Your task to perform on an android device: turn notification dots on Image 0: 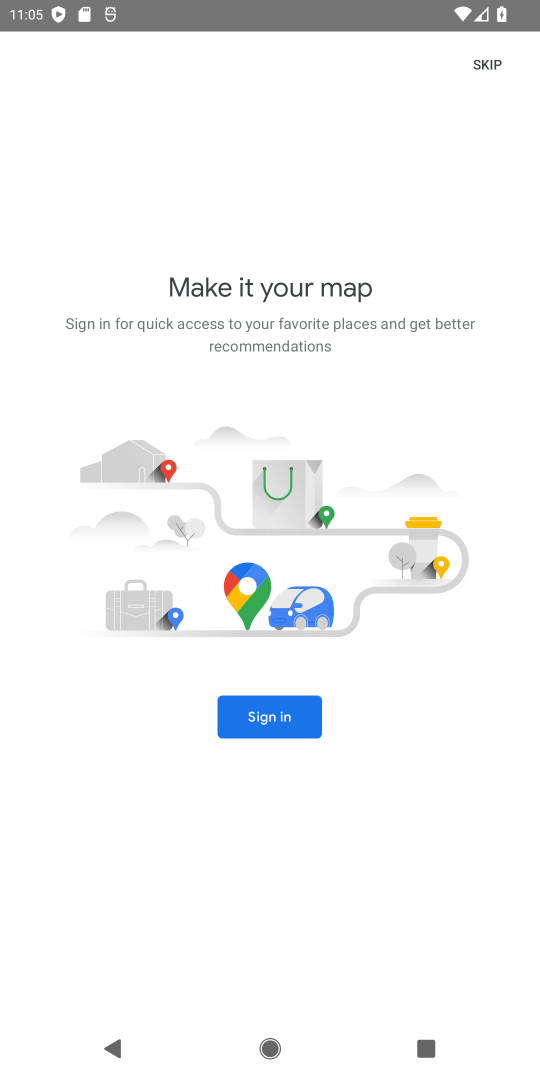
Step 0: press home button
Your task to perform on an android device: turn notification dots on Image 1: 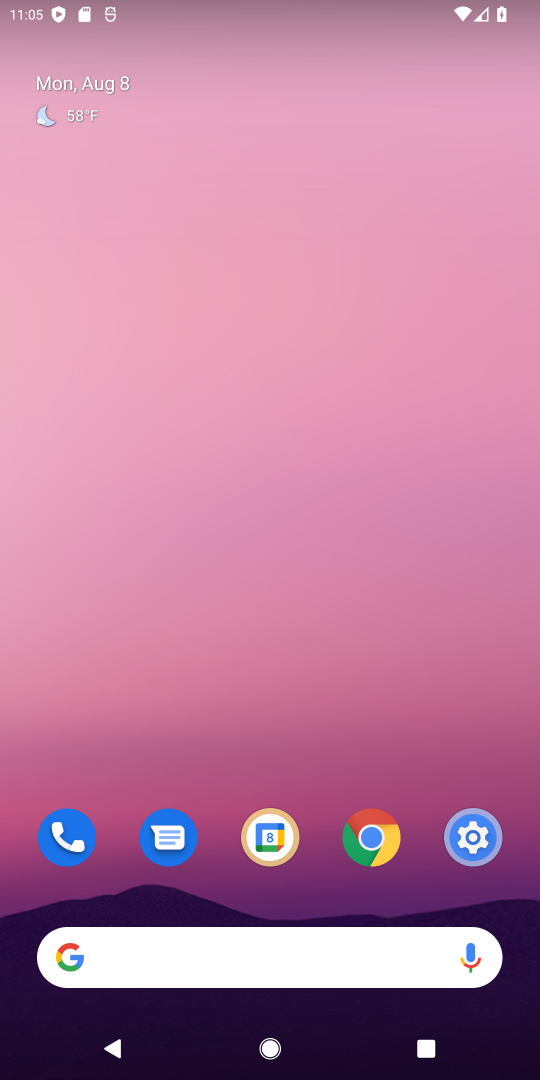
Step 1: click (463, 828)
Your task to perform on an android device: turn notification dots on Image 2: 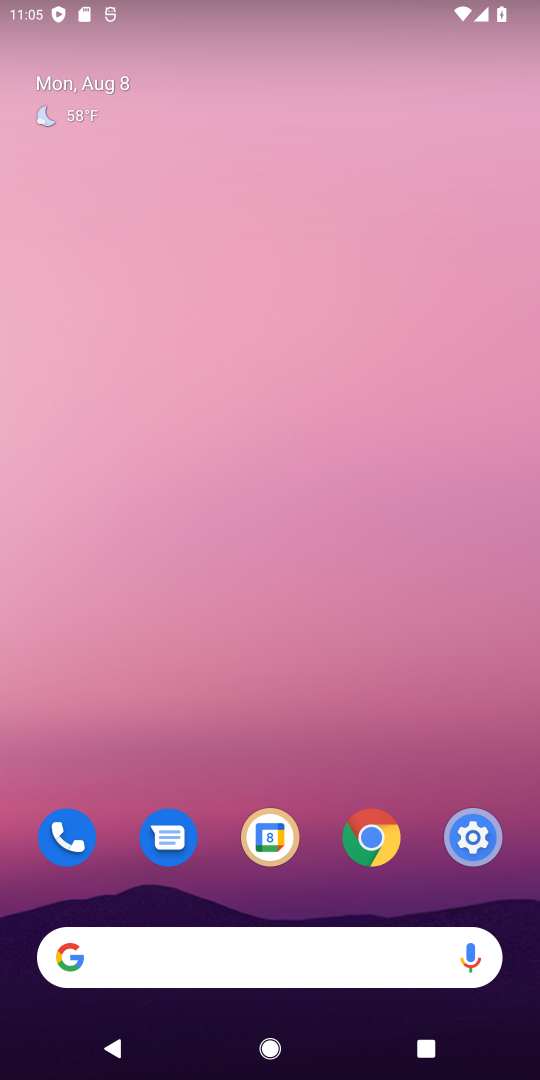
Step 2: click (474, 824)
Your task to perform on an android device: turn notification dots on Image 3: 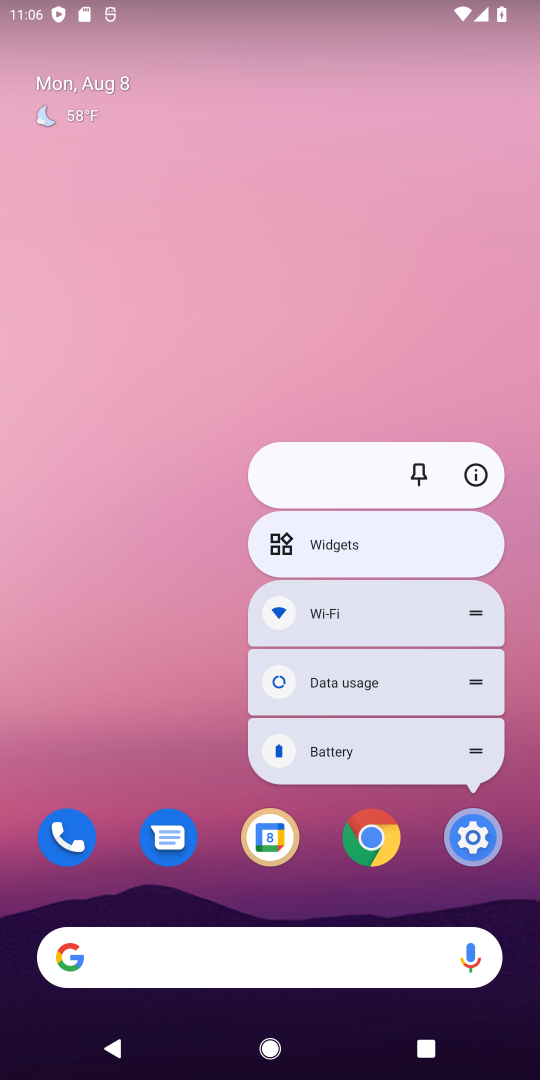
Step 3: click (487, 846)
Your task to perform on an android device: turn notification dots on Image 4: 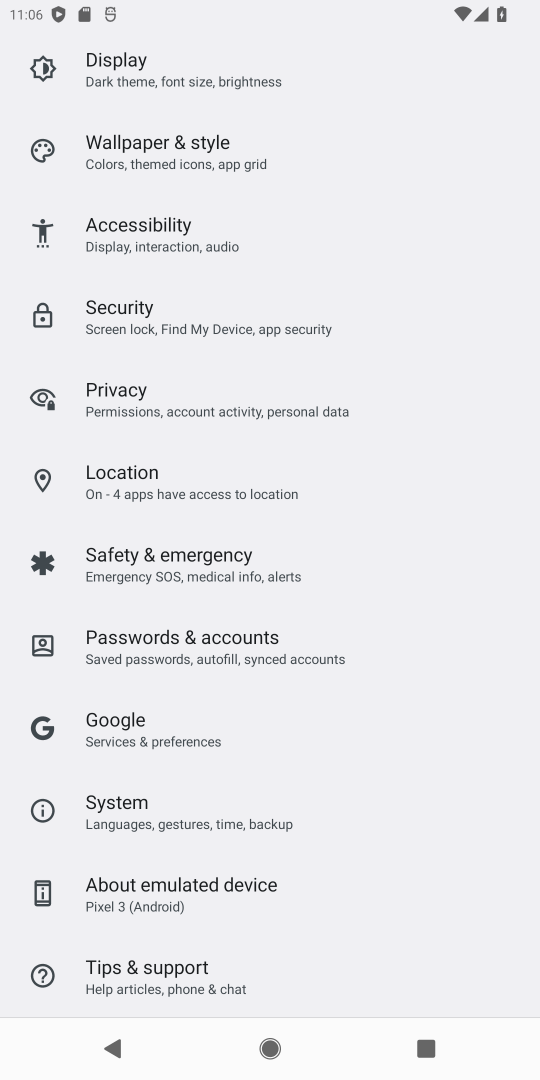
Step 4: drag from (303, 233) to (345, 589)
Your task to perform on an android device: turn notification dots on Image 5: 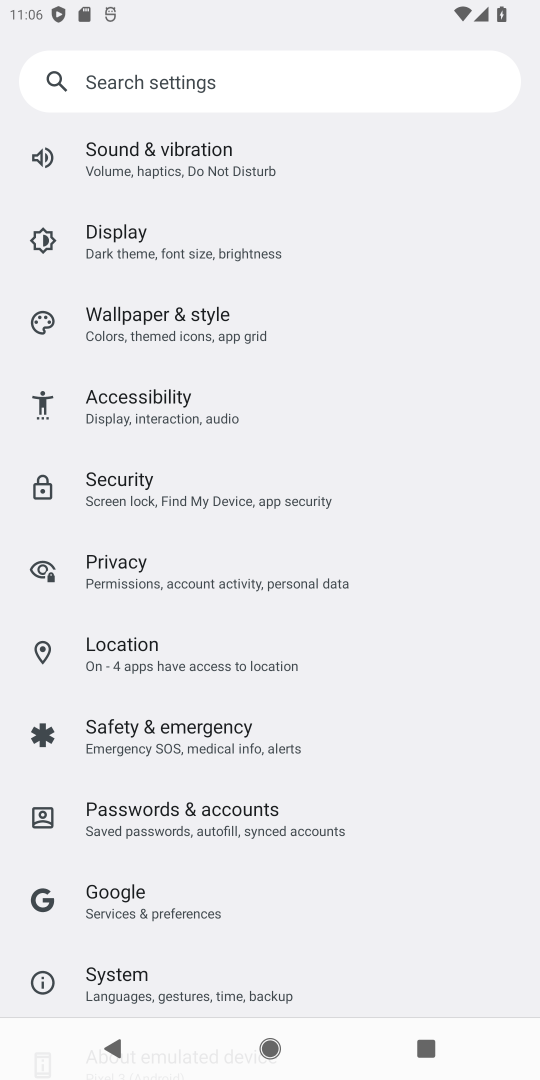
Step 5: drag from (367, 183) to (410, 562)
Your task to perform on an android device: turn notification dots on Image 6: 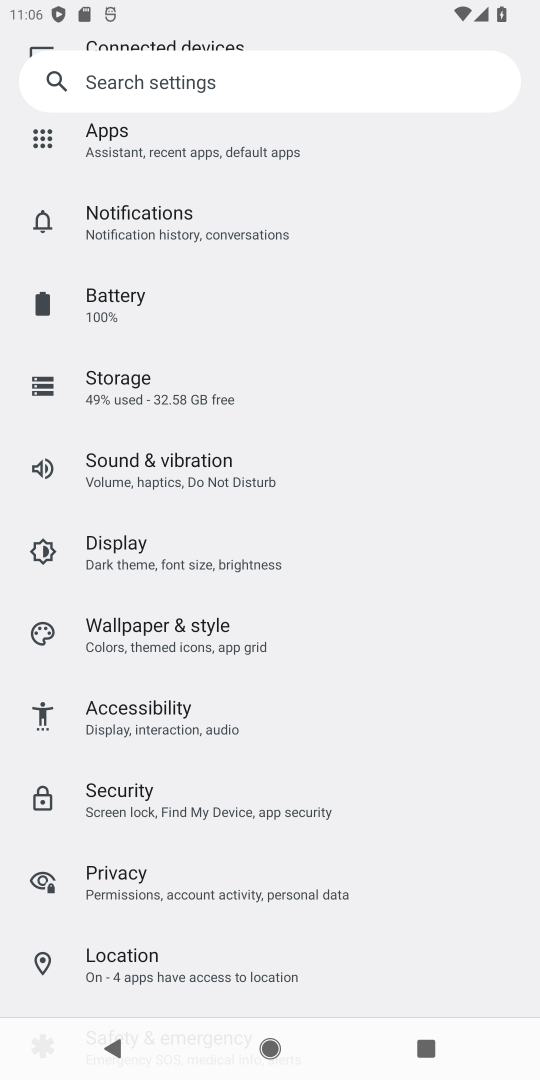
Step 6: drag from (340, 330) to (386, 713)
Your task to perform on an android device: turn notification dots on Image 7: 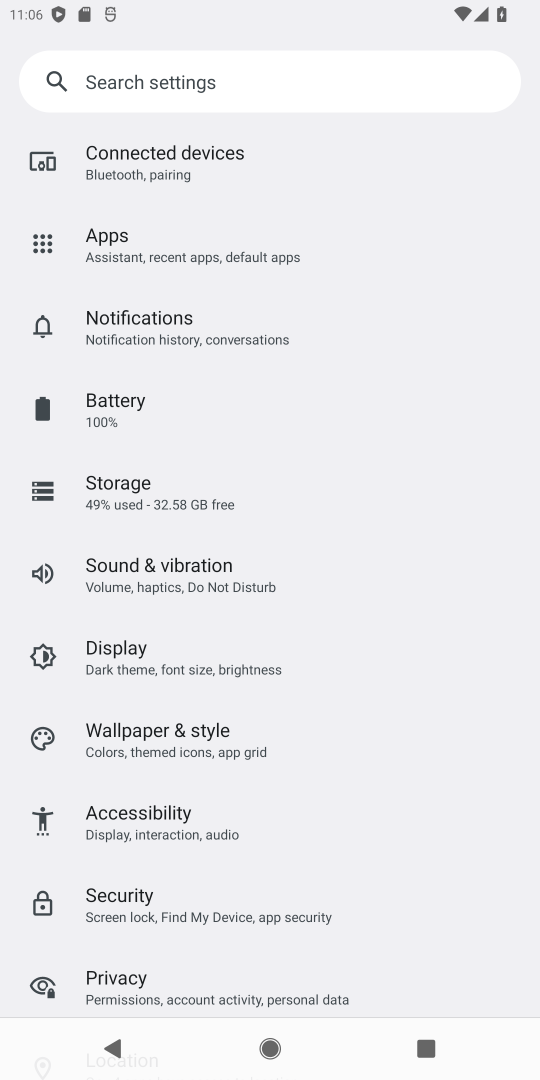
Step 7: click (133, 321)
Your task to perform on an android device: turn notification dots on Image 8: 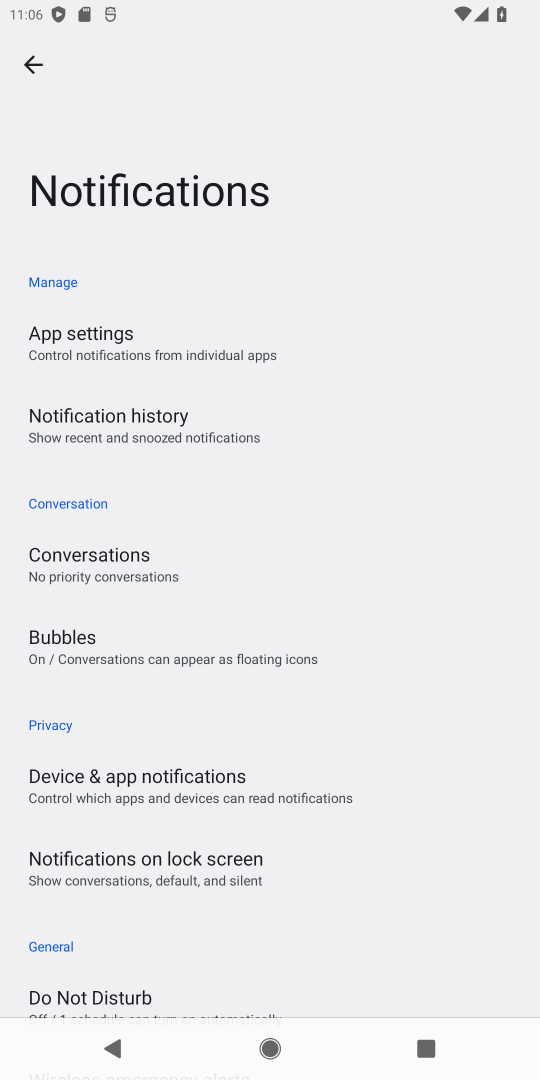
Step 8: task complete